Your task to perform on an android device: make emails show in primary in the gmail app Image 0: 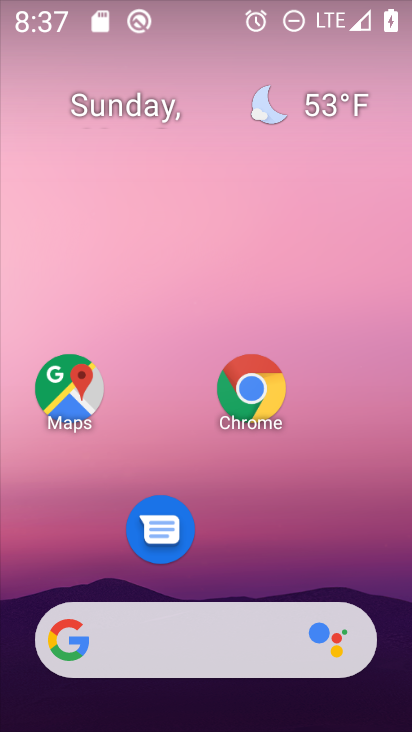
Step 0: drag from (232, 558) to (299, 32)
Your task to perform on an android device: make emails show in primary in the gmail app Image 1: 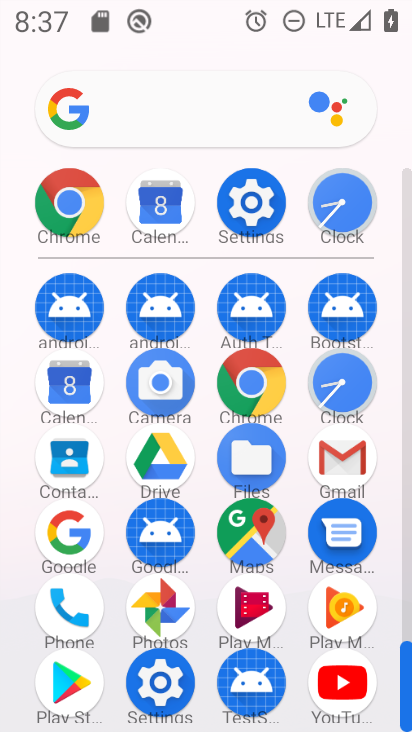
Step 1: click (356, 461)
Your task to perform on an android device: make emails show in primary in the gmail app Image 2: 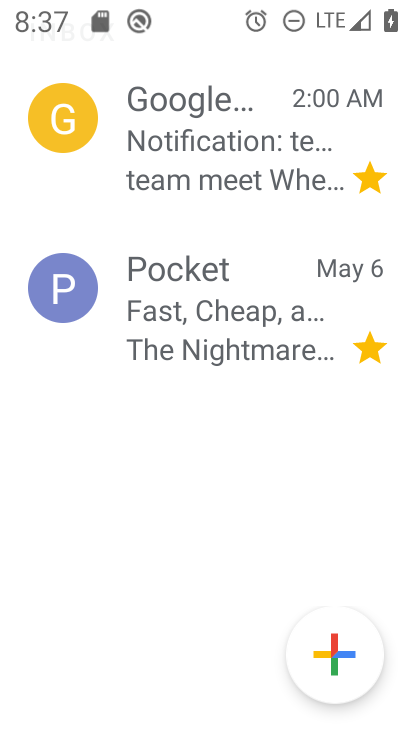
Step 2: drag from (100, 130) to (113, 504)
Your task to perform on an android device: make emails show in primary in the gmail app Image 3: 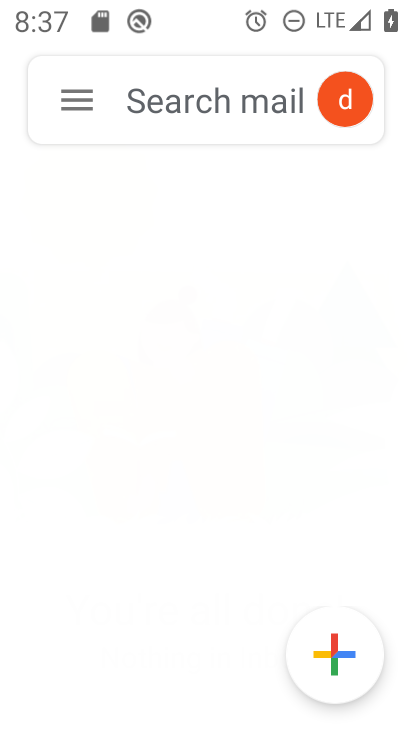
Step 3: click (62, 119)
Your task to perform on an android device: make emails show in primary in the gmail app Image 4: 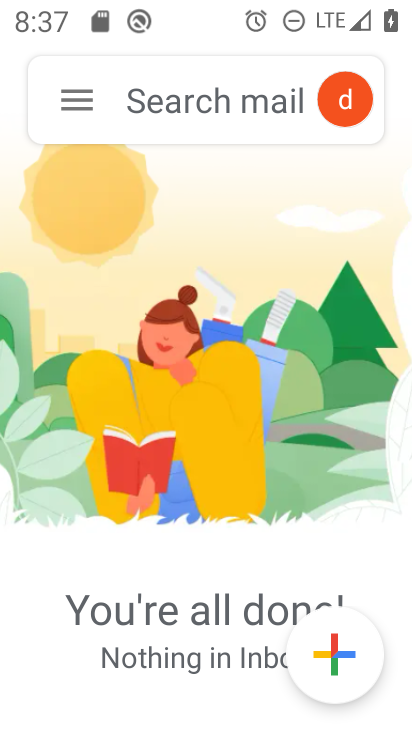
Step 4: click (80, 114)
Your task to perform on an android device: make emails show in primary in the gmail app Image 5: 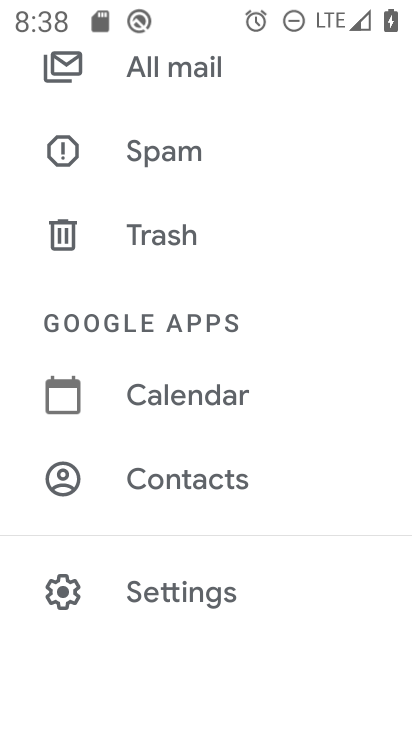
Step 5: click (155, 585)
Your task to perform on an android device: make emails show in primary in the gmail app Image 6: 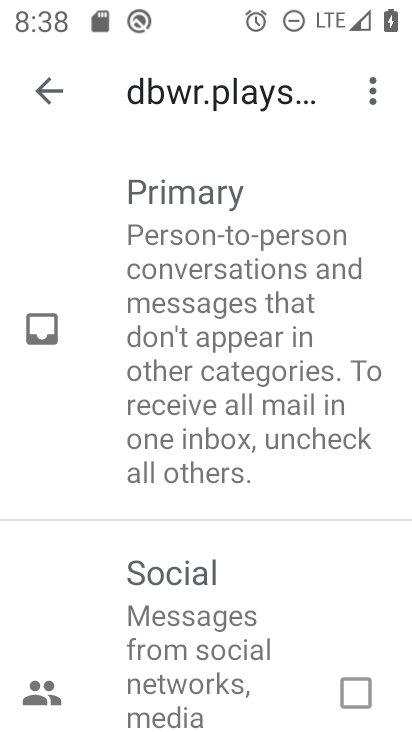
Step 6: click (210, 347)
Your task to perform on an android device: make emails show in primary in the gmail app Image 7: 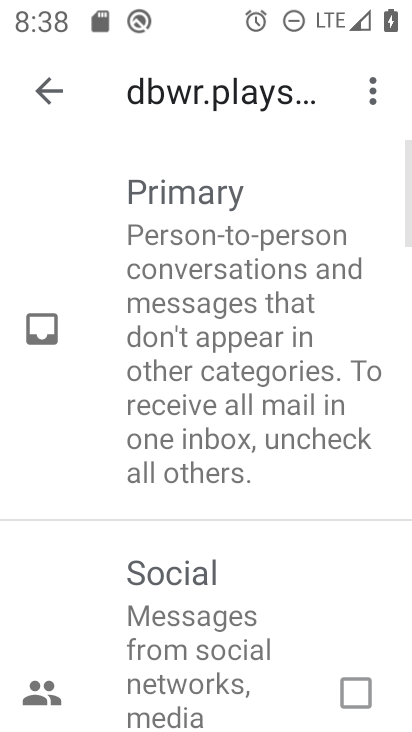
Step 7: click (46, 96)
Your task to perform on an android device: make emails show in primary in the gmail app Image 8: 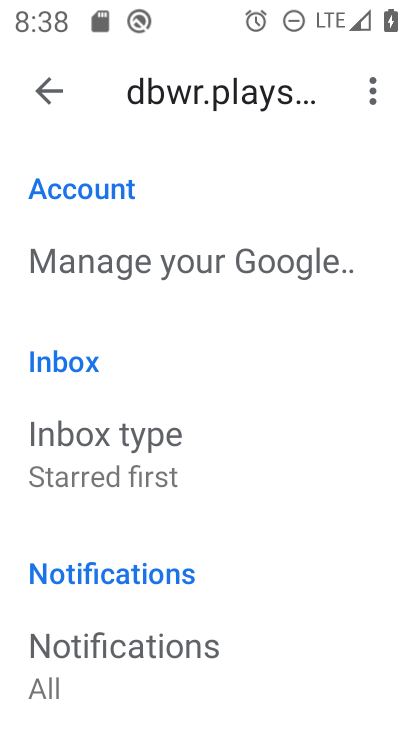
Step 8: click (170, 452)
Your task to perform on an android device: make emails show in primary in the gmail app Image 9: 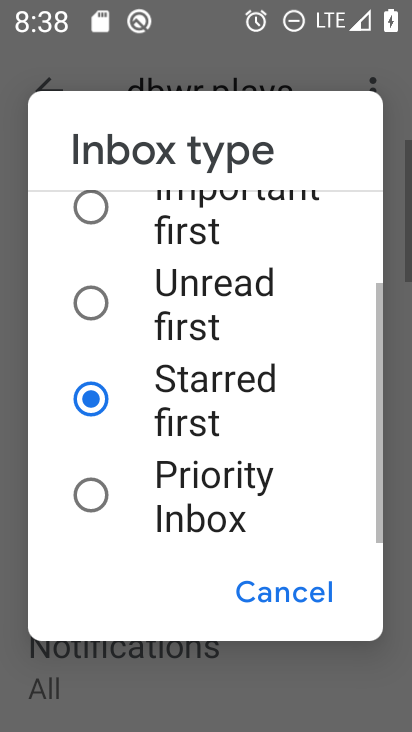
Step 9: drag from (168, 281) to (168, 555)
Your task to perform on an android device: make emails show in primary in the gmail app Image 10: 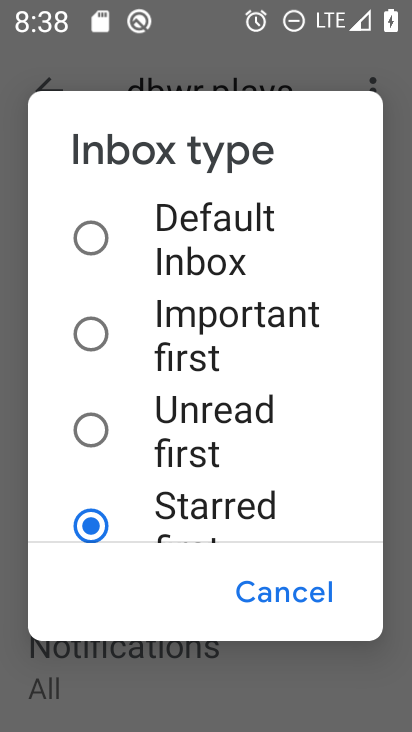
Step 10: click (89, 257)
Your task to perform on an android device: make emails show in primary in the gmail app Image 11: 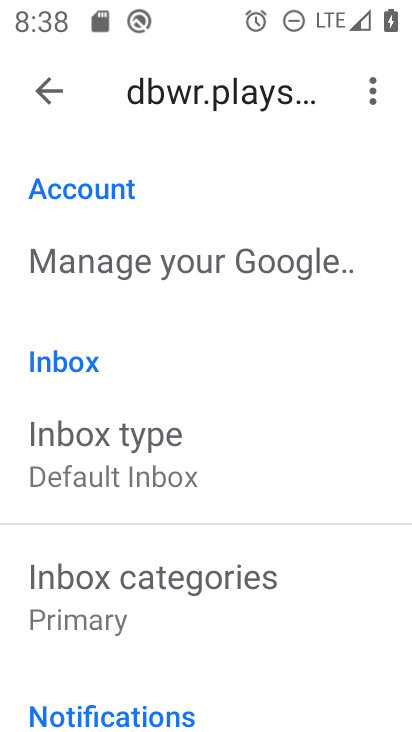
Step 11: task complete